Your task to perform on an android device: Open the phone app and click the voicemail tab. Image 0: 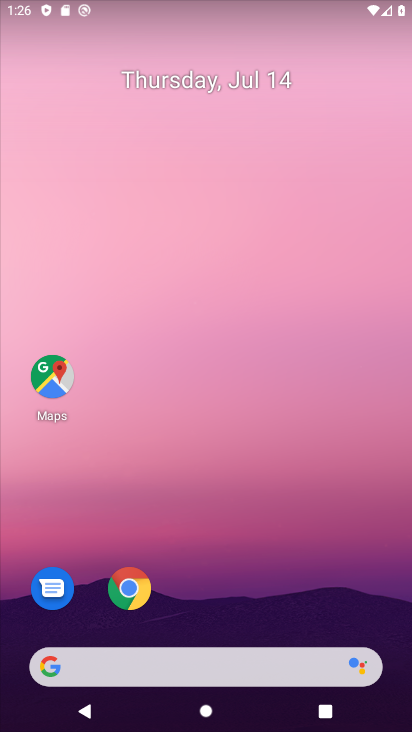
Step 0: drag from (180, 708) to (319, 14)
Your task to perform on an android device: Open the phone app and click the voicemail tab. Image 1: 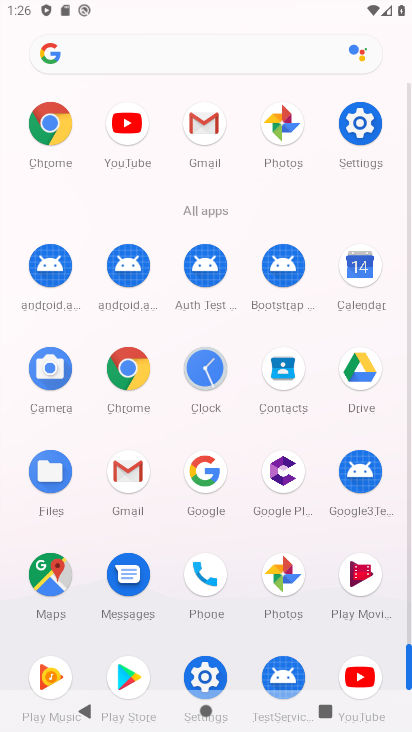
Step 1: click (205, 583)
Your task to perform on an android device: Open the phone app and click the voicemail tab. Image 2: 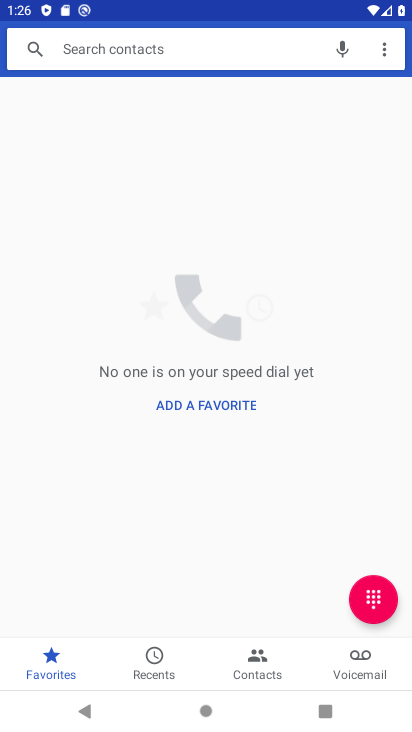
Step 2: click (355, 664)
Your task to perform on an android device: Open the phone app and click the voicemail tab. Image 3: 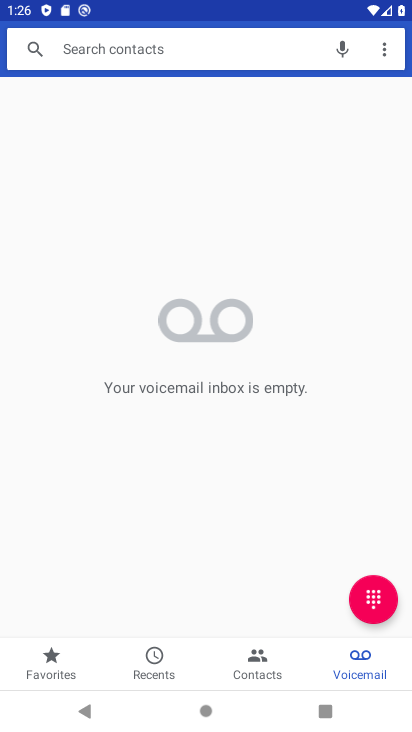
Step 3: task complete